Your task to perform on an android device: Search for sushi restaurants on Maps Image 0: 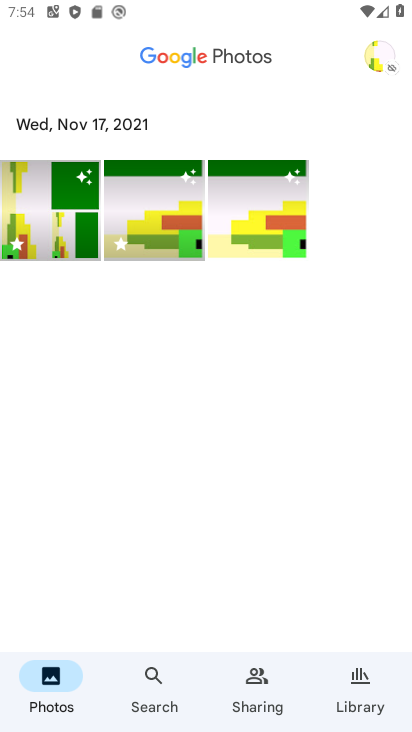
Step 0: press home button
Your task to perform on an android device: Search for sushi restaurants on Maps Image 1: 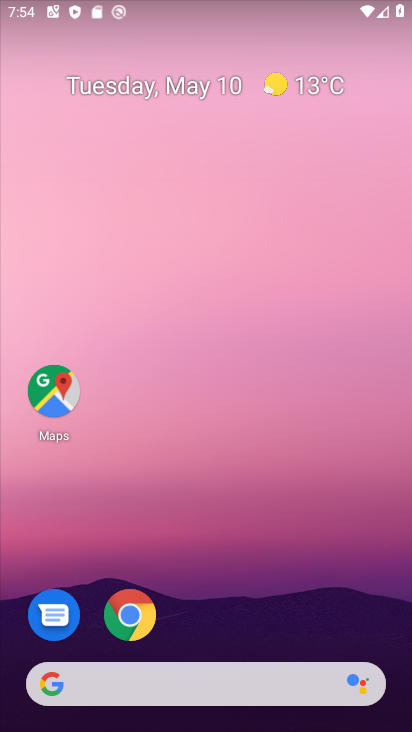
Step 1: click (51, 388)
Your task to perform on an android device: Search for sushi restaurants on Maps Image 2: 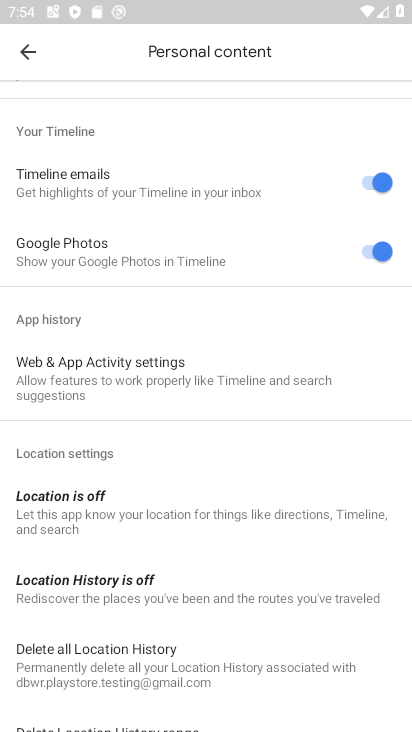
Step 2: click (27, 54)
Your task to perform on an android device: Search for sushi restaurants on Maps Image 3: 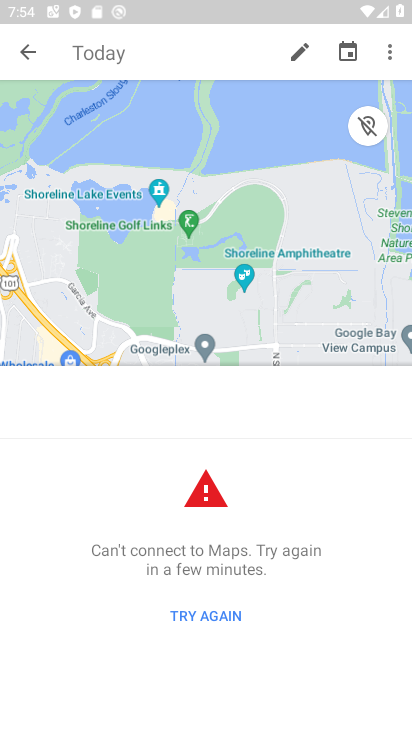
Step 3: click (27, 54)
Your task to perform on an android device: Search for sushi restaurants on Maps Image 4: 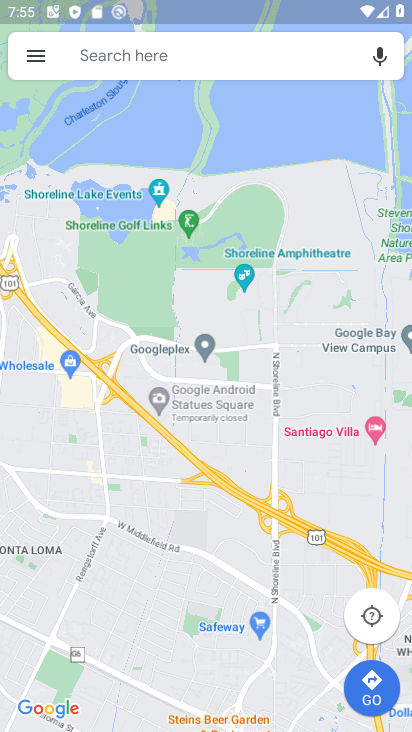
Step 4: click (147, 59)
Your task to perform on an android device: Search for sushi restaurants on Maps Image 5: 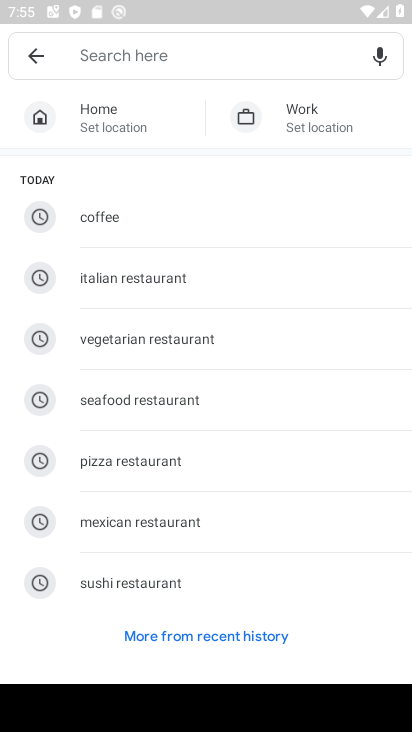
Step 5: click (150, 582)
Your task to perform on an android device: Search for sushi restaurants on Maps Image 6: 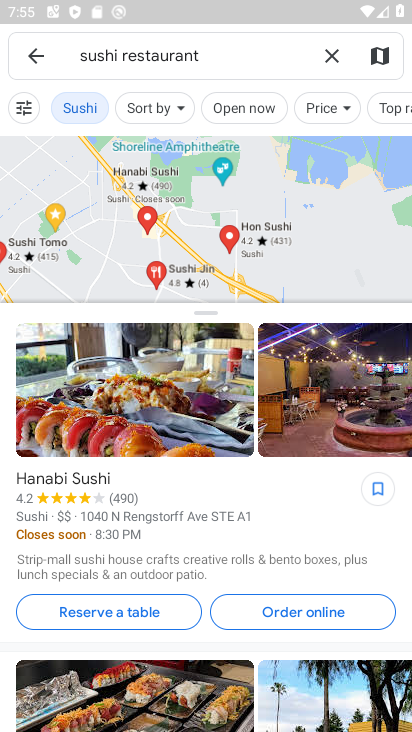
Step 6: click (150, 582)
Your task to perform on an android device: Search for sushi restaurants on Maps Image 7: 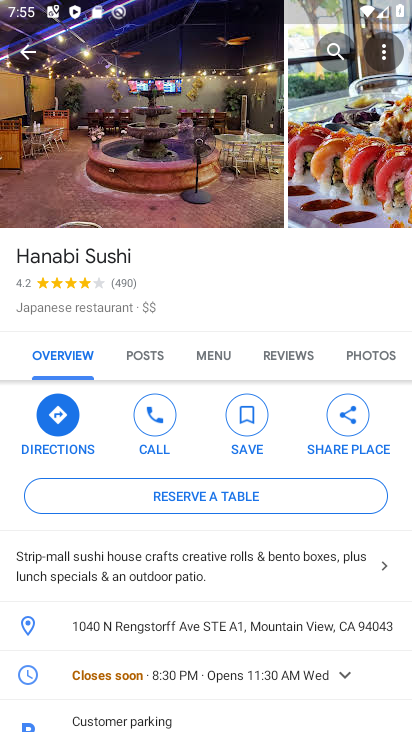
Step 7: task complete